Your task to perform on an android device: Show me recent news Image 0: 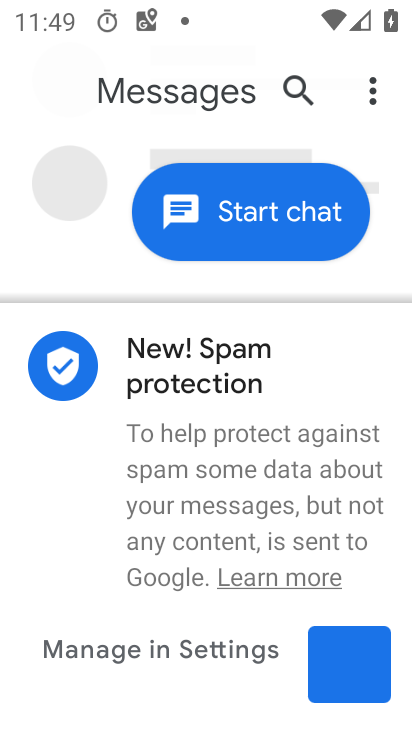
Step 0: press home button
Your task to perform on an android device: Show me recent news Image 1: 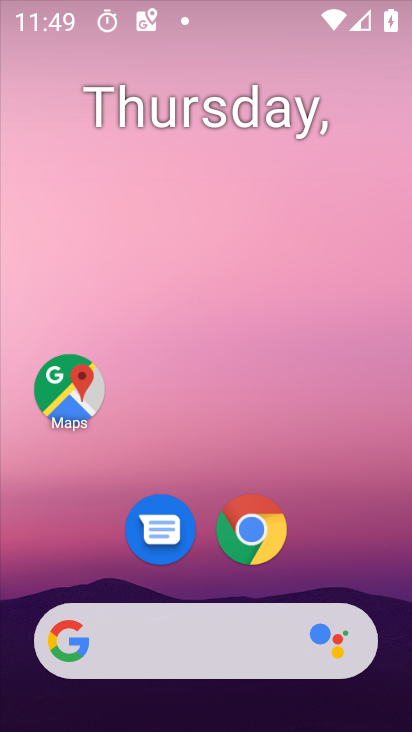
Step 1: drag from (177, 636) to (292, 2)
Your task to perform on an android device: Show me recent news Image 2: 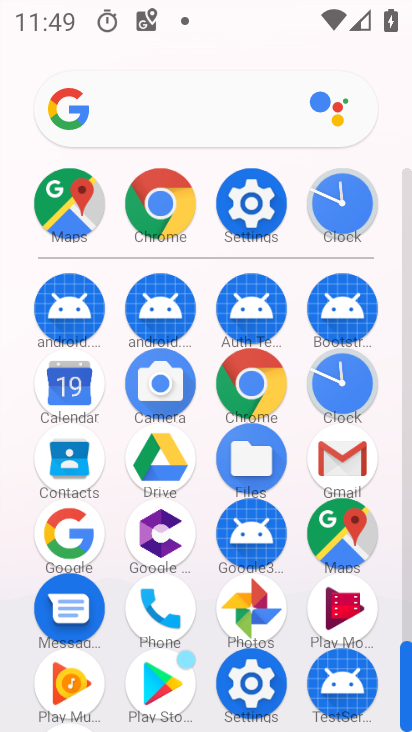
Step 2: drag from (156, 597) to (297, 0)
Your task to perform on an android device: Show me recent news Image 3: 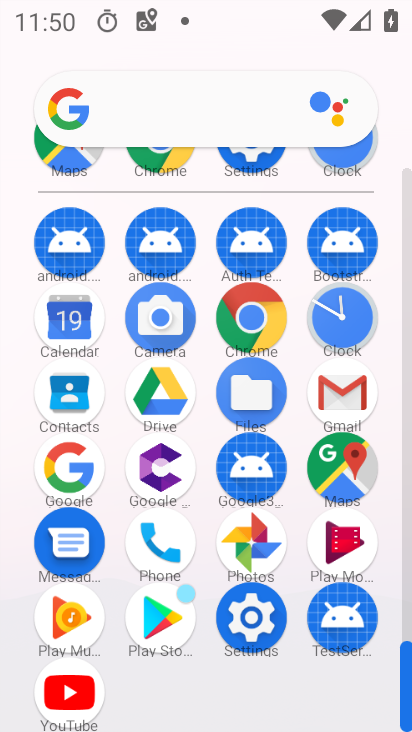
Step 3: click (67, 488)
Your task to perform on an android device: Show me recent news Image 4: 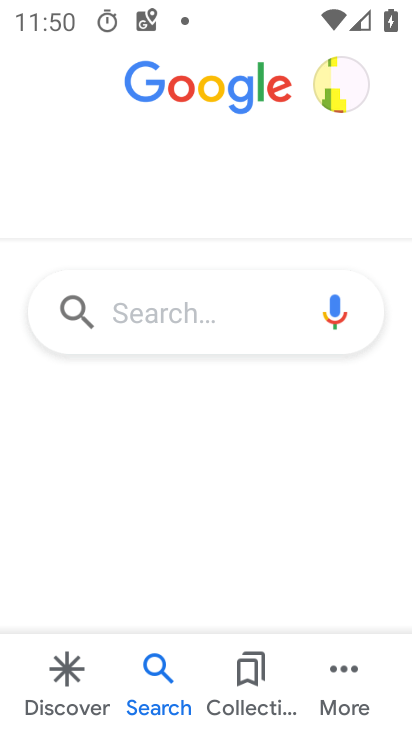
Step 4: click (201, 327)
Your task to perform on an android device: Show me recent news Image 5: 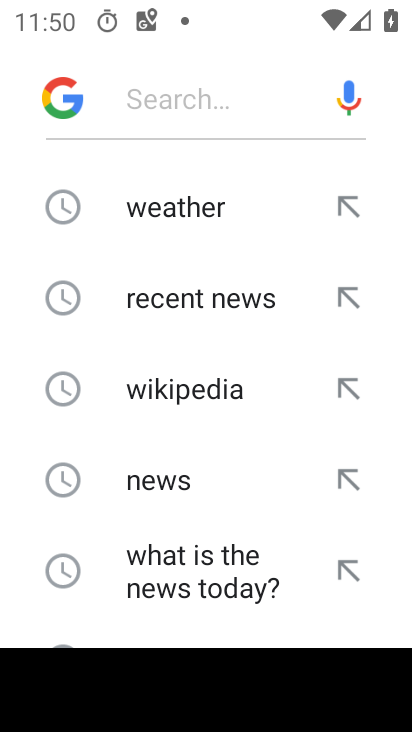
Step 5: click (200, 320)
Your task to perform on an android device: Show me recent news Image 6: 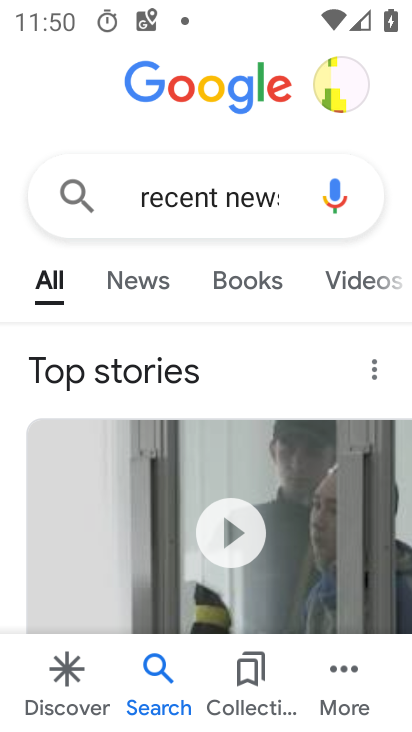
Step 6: task complete